Your task to perform on an android device: all mails in gmail Image 0: 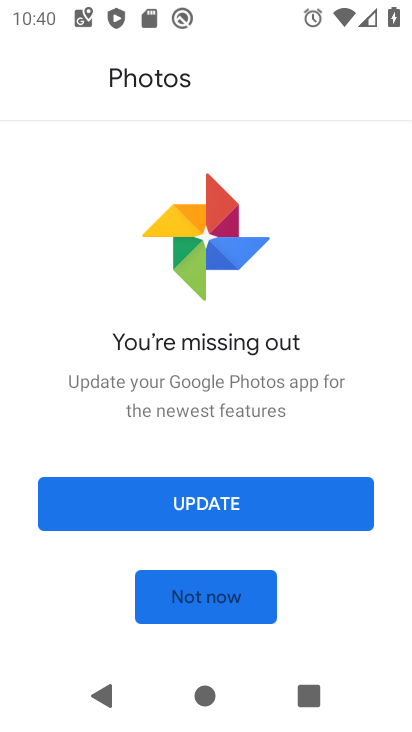
Step 0: press home button
Your task to perform on an android device: all mails in gmail Image 1: 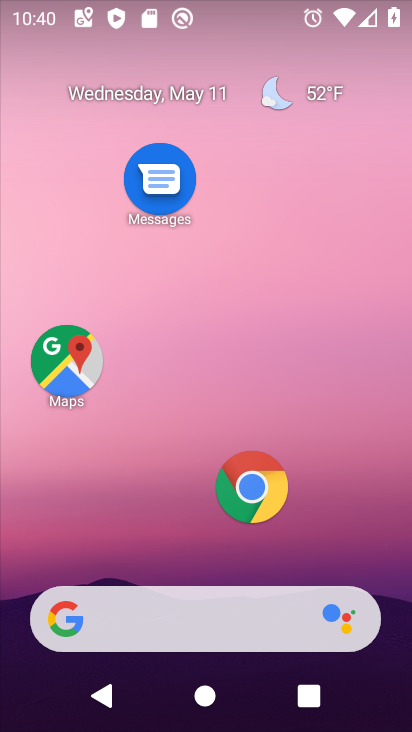
Step 1: drag from (205, 558) to (225, 240)
Your task to perform on an android device: all mails in gmail Image 2: 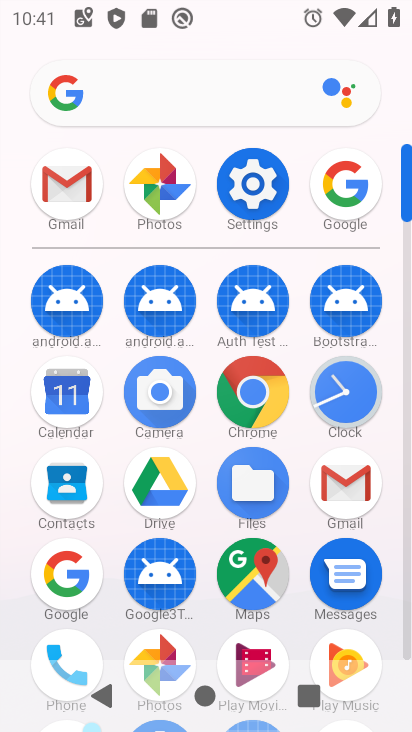
Step 2: click (327, 477)
Your task to perform on an android device: all mails in gmail Image 3: 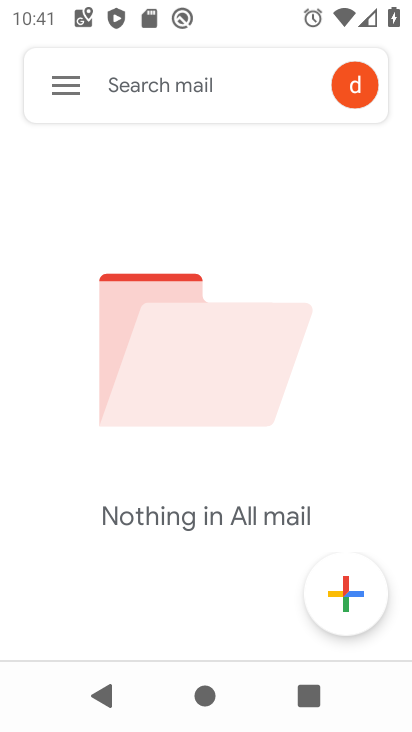
Step 3: click (55, 88)
Your task to perform on an android device: all mails in gmail Image 4: 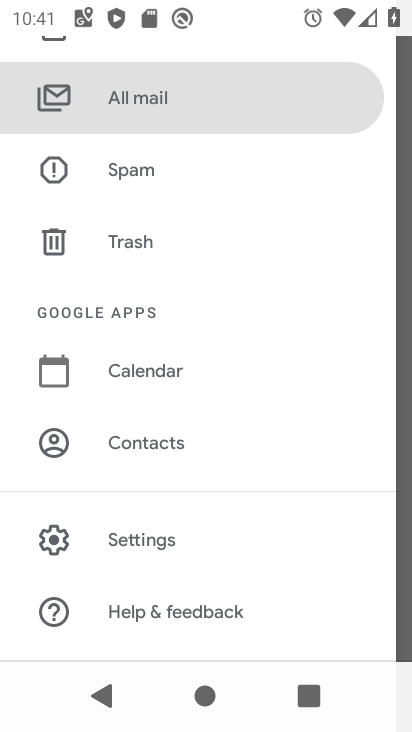
Step 4: click (195, 85)
Your task to perform on an android device: all mails in gmail Image 5: 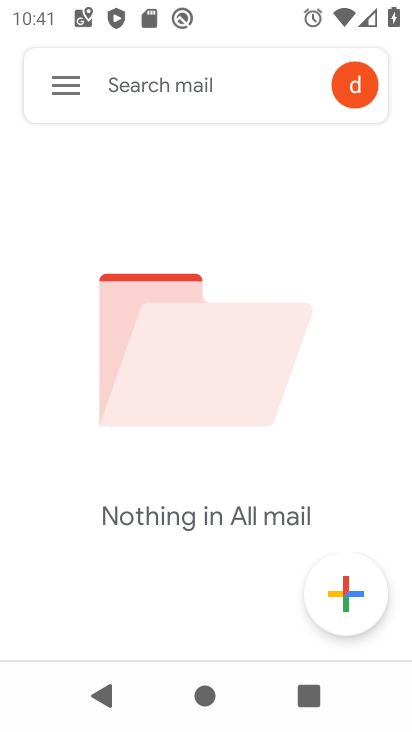
Step 5: task complete